Your task to perform on an android device: add a contact in the contacts app Image 0: 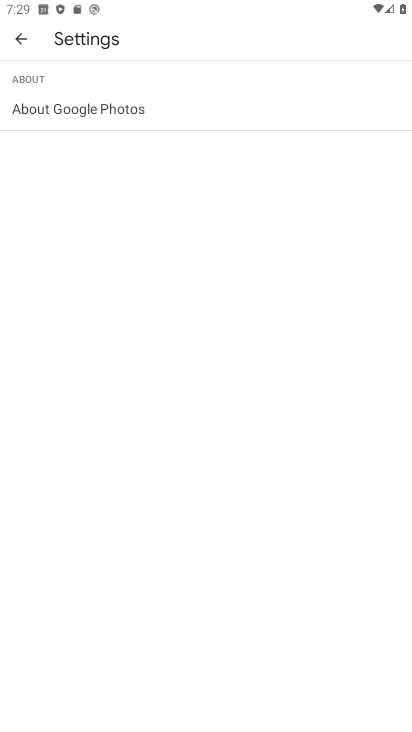
Step 0: press home button
Your task to perform on an android device: add a contact in the contacts app Image 1: 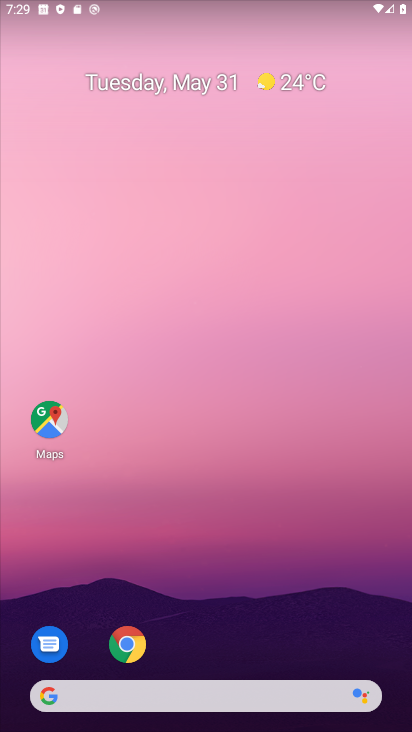
Step 1: drag from (317, 579) to (334, 316)
Your task to perform on an android device: add a contact in the contacts app Image 2: 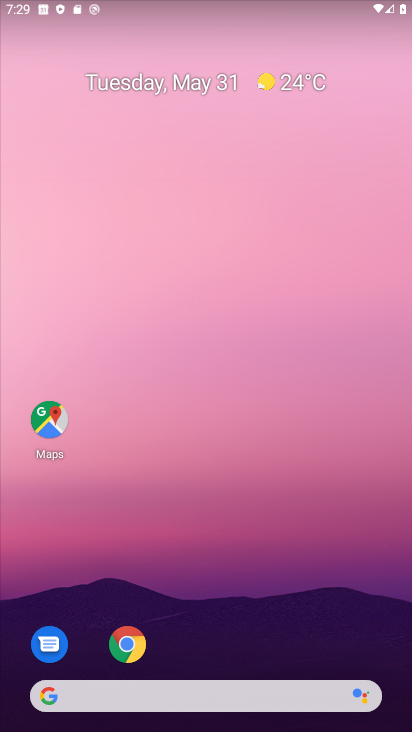
Step 2: drag from (310, 610) to (344, 275)
Your task to perform on an android device: add a contact in the contacts app Image 3: 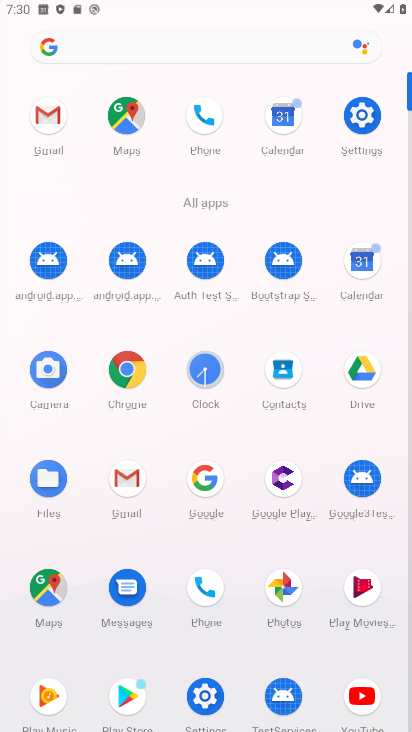
Step 3: click (289, 368)
Your task to perform on an android device: add a contact in the contacts app Image 4: 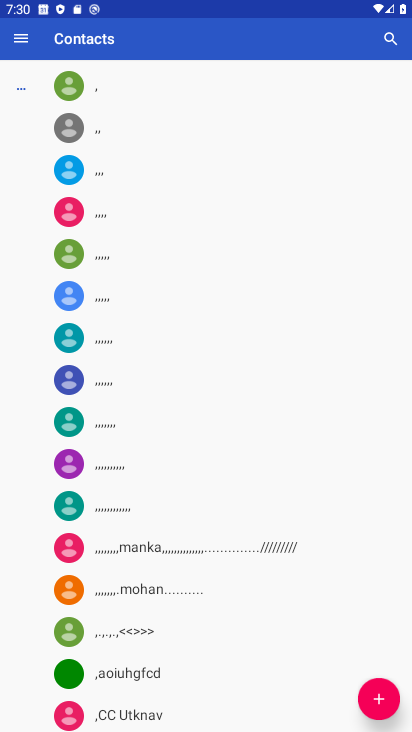
Step 4: click (390, 699)
Your task to perform on an android device: add a contact in the contacts app Image 5: 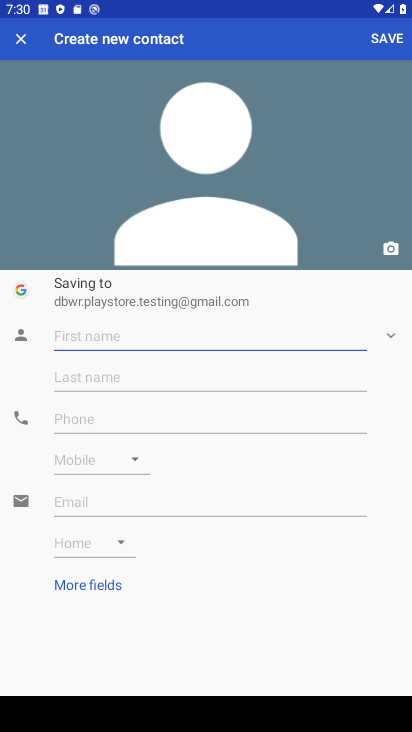
Step 5: click (230, 332)
Your task to perform on an android device: add a contact in the contacts app Image 6: 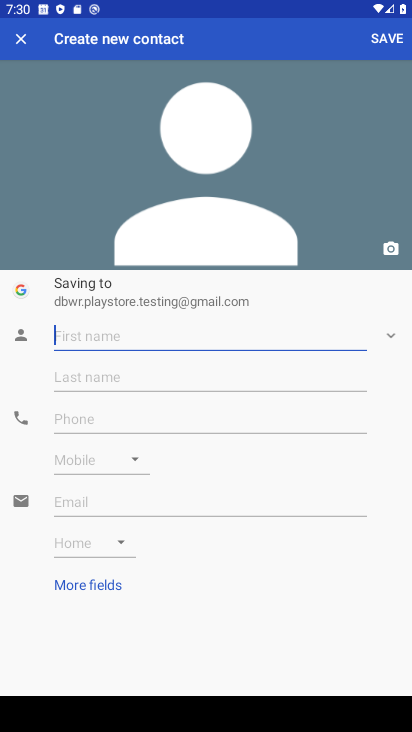
Step 6: type "karim"
Your task to perform on an android device: add a contact in the contacts app Image 7: 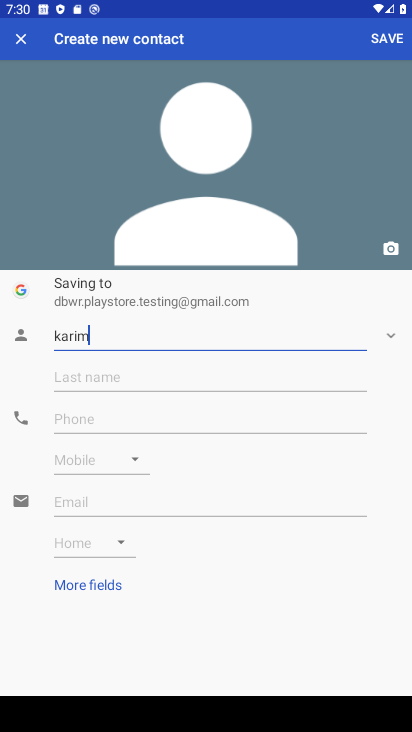
Step 7: click (190, 417)
Your task to perform on an android device: add a contact in the contacts app Image 8: 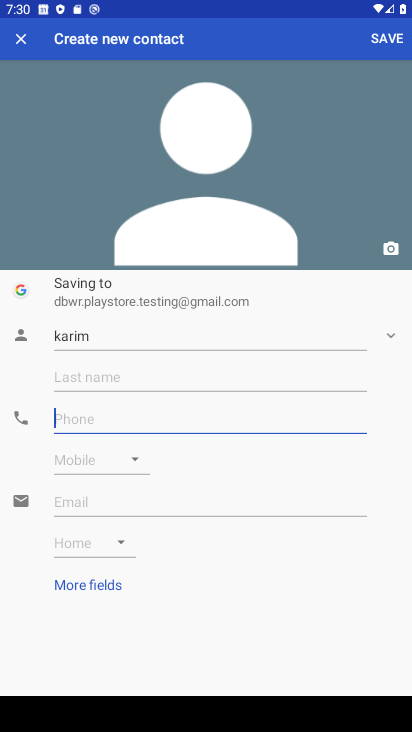
Step 8: type "983743873"
Your task to perform on an android device: add a contact in the contacts app Image 9: 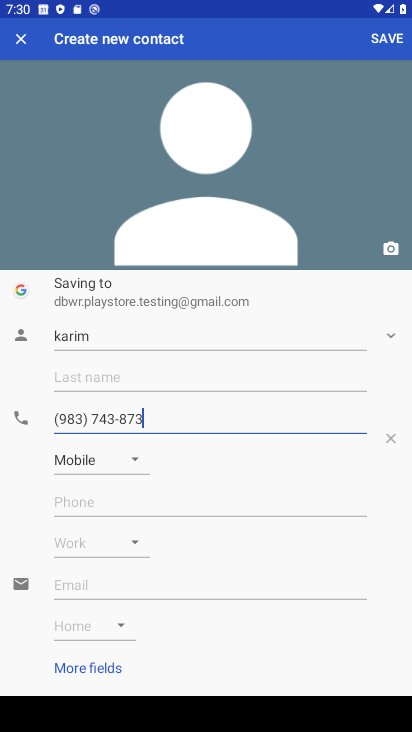
Step 9: click (394, 36)
Your task to perform on an android device: add a contact in the contacts app Image 10: 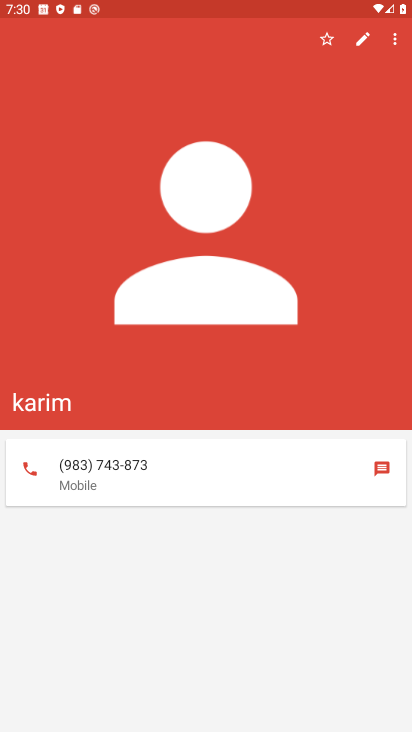
Step 10: task complete